Your task to perform on an android device: Search for sushi restaurants on Maps Image 0: 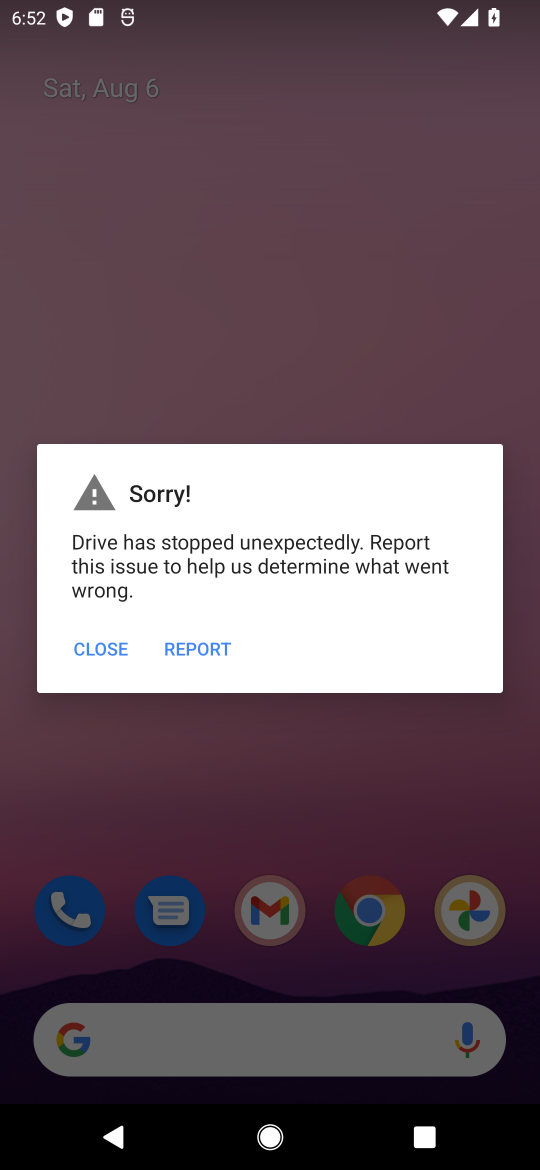
Step 0: press home button
Your task to perform on an android device: Search for sushi restaurants on Maps Image 1: 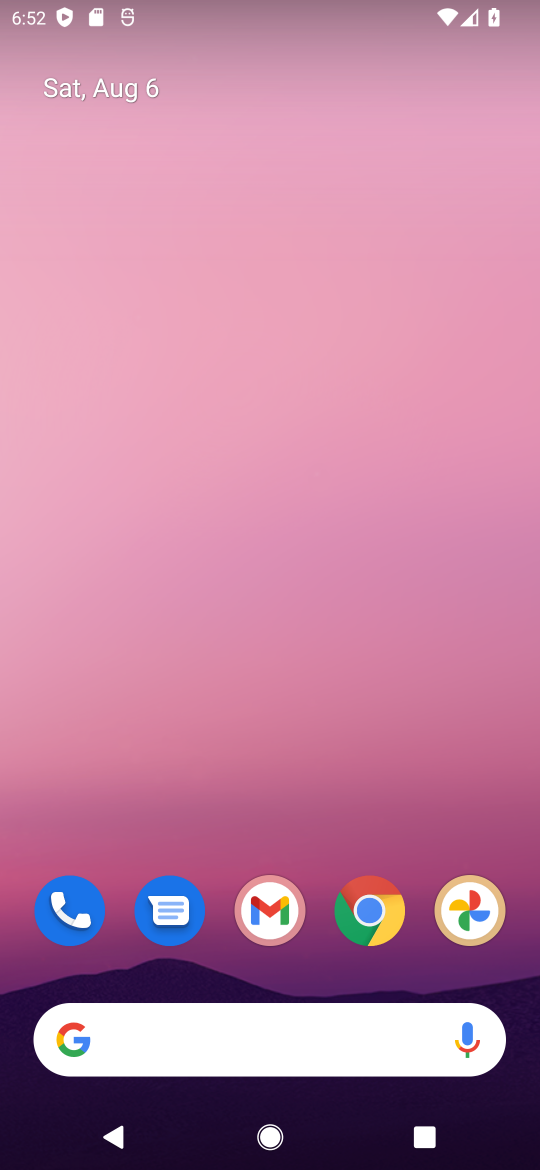
Step 1: drag from (516, 1073) to (435, 156)
Your task to perform on an android device: Search for sushi restaurants on Maps Image 2: 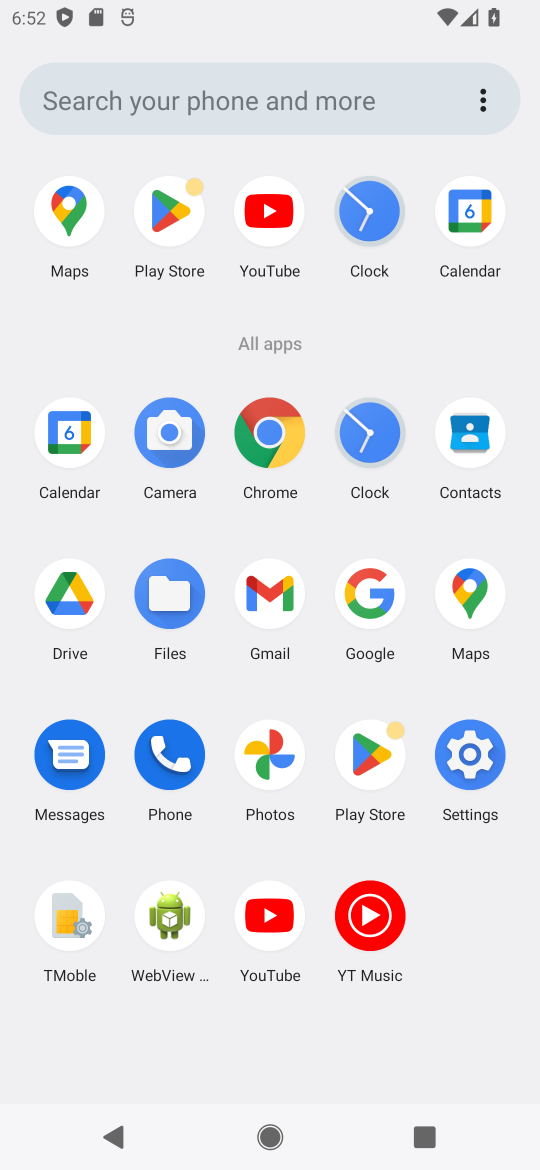
Step 2: click (459, 584)
Your task to perform on an android device: Search for sushi restaurants on Maps Image 3: 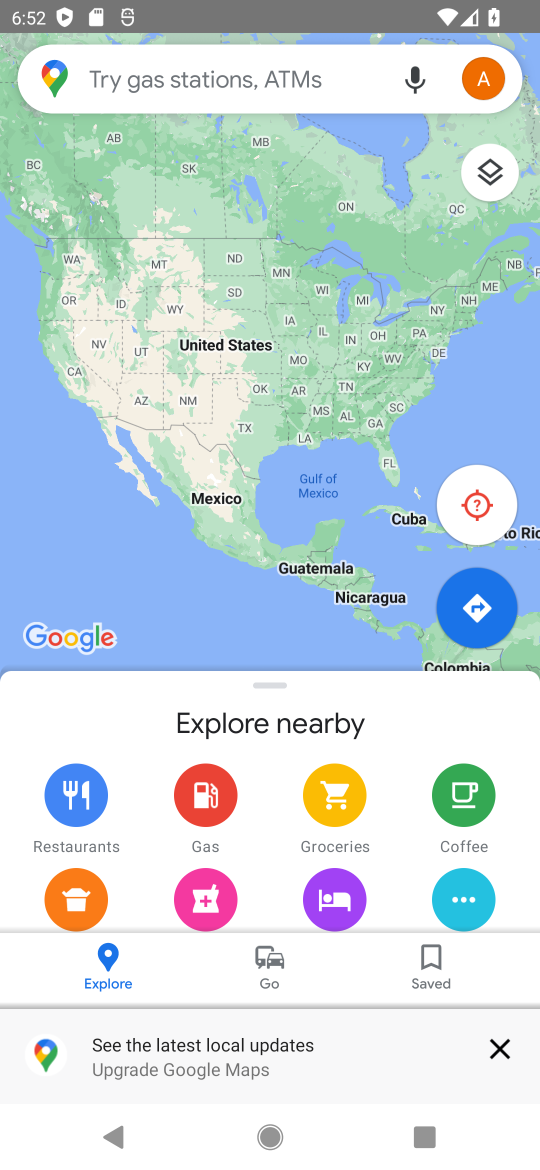
Step 3: click (278, 72)
Your task to perform on an android device: Search for sushi restaurants on Maps Image 4: 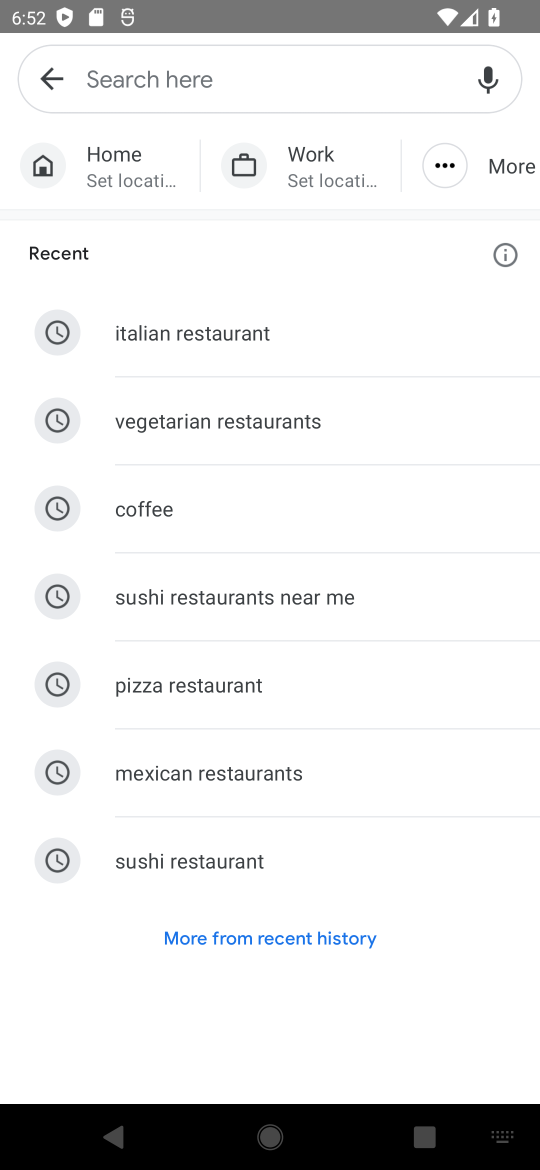
Step 4: type "sushi restaurants"
Your task to perform on an android device: Search for sushi restaurants on Maps Image 5: 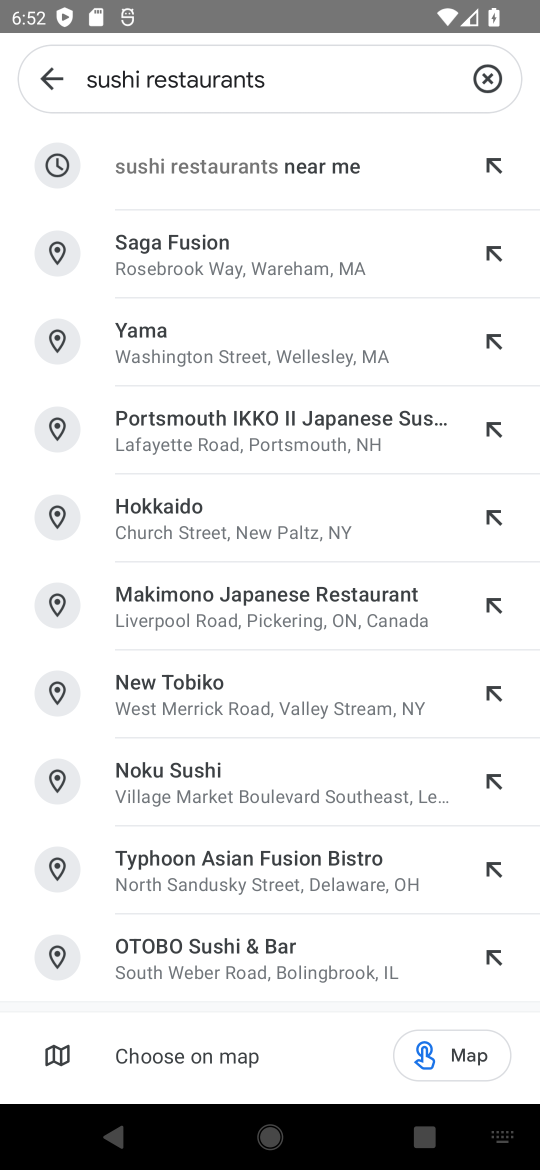
Step 5: click (200, 153)
Your task to perform on an android device: Search for sushi restaurants on Maps Image 6: 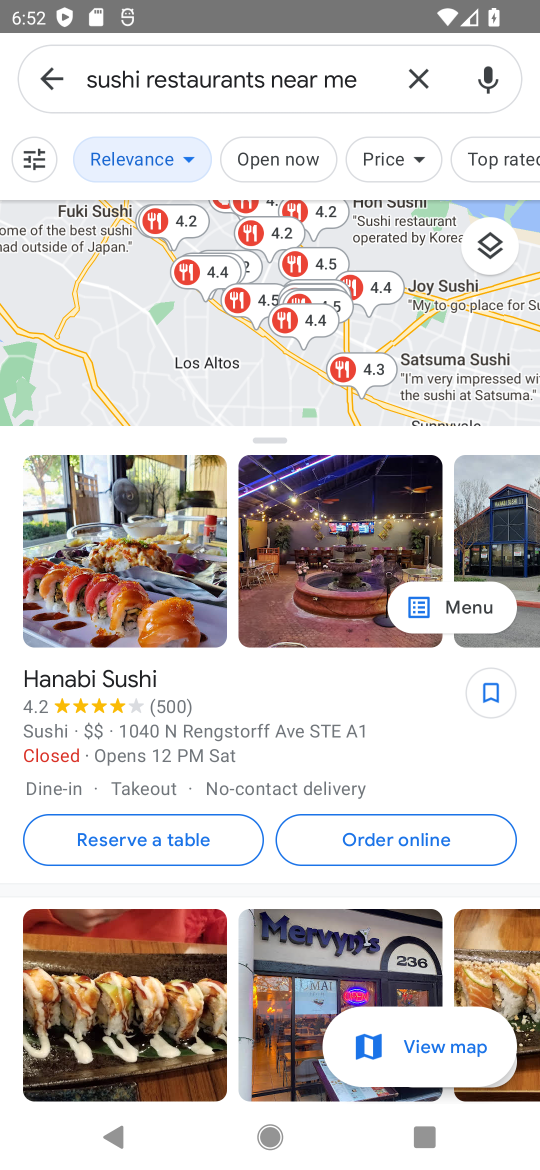
Step 6: task complete